Your task to perform on an android device: change the clock style Image 0: 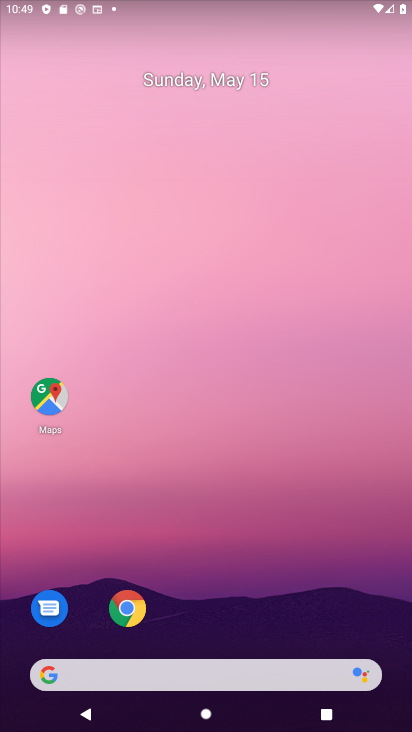
Step 0: drag from (365, 605) to (364, 149)
Your task to perform on an android device: change the clock style Image 1: 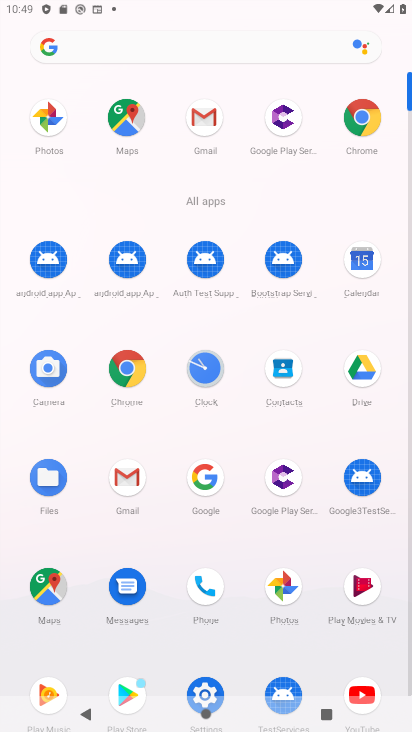
Step 1: click (211, 381)
Your task to perform on an android device: change the clock style Image 2: 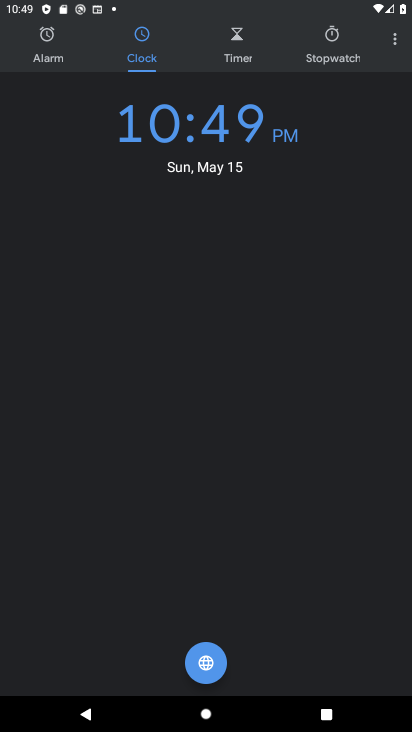
Step 2: click (396, 43)
Your task to perform on an android device: change the clock style Image 3: 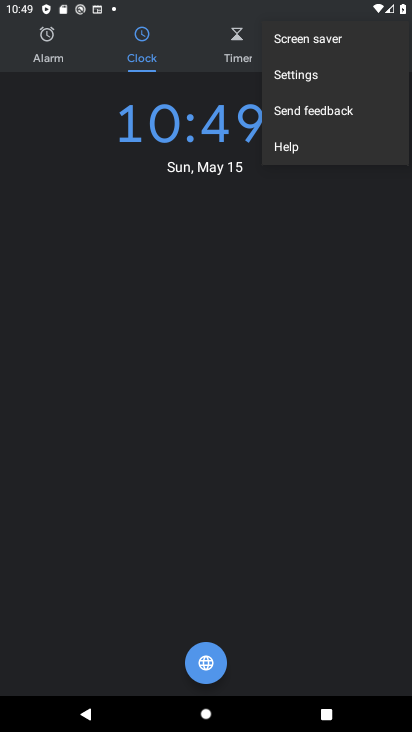
Step 3: click (327, 75)
Your task to perform on an android device: change the clock style Image 4: 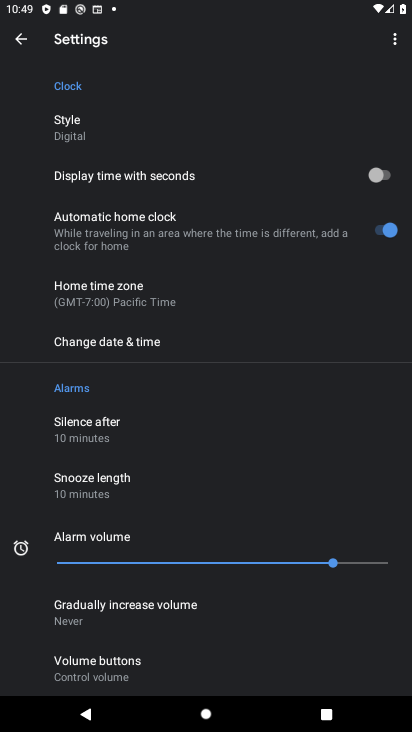
Step 4: click (88, 135)
Your task to perform on an android device: change the clock style Image 5: 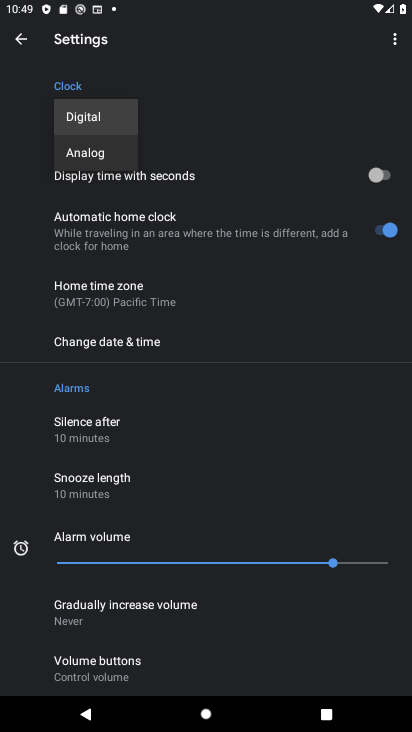
Step 5: click (82, 158)
Your task to perform on an android device: change the clock style Image 6: 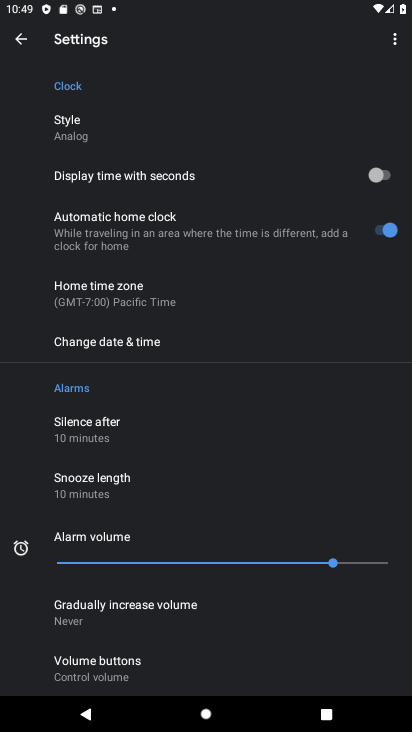
Step 6: task complete